Your task to perform on an android device: set default search engine in the chrome app Image 0: 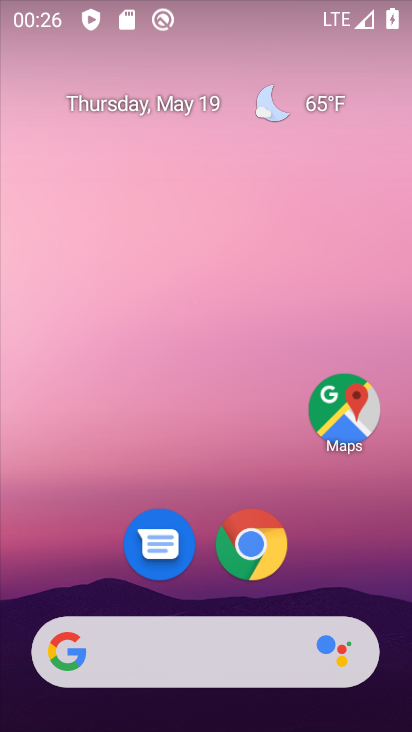
Step 0: drag from (380, 578) to (354, 68)
Your task to perform on an android device: set default search engine in the chrome app Image 1: 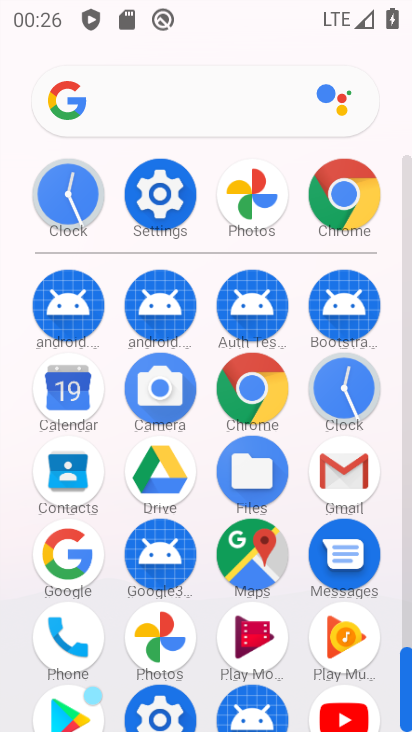
Step 1: click (262, 392)
Your task to perform on an android device: set default search engine in the chrome app Image 2: 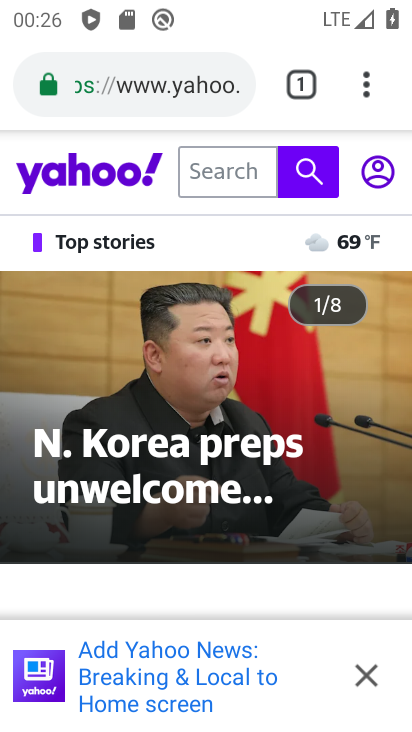
Step 2: click (360, 96)
Your task to perform on an android device: set default search engine in the chrome app Image 3: 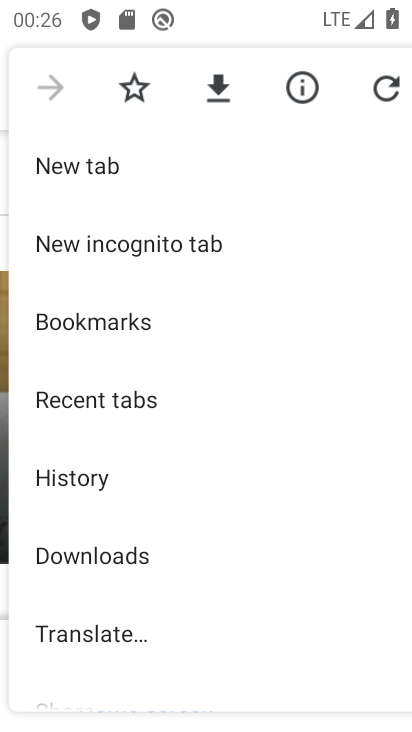
Step 3: drag from (281, 533) to (291, 376)
Your task to perform on an android device: set default search engine in the chrome app Image 4: 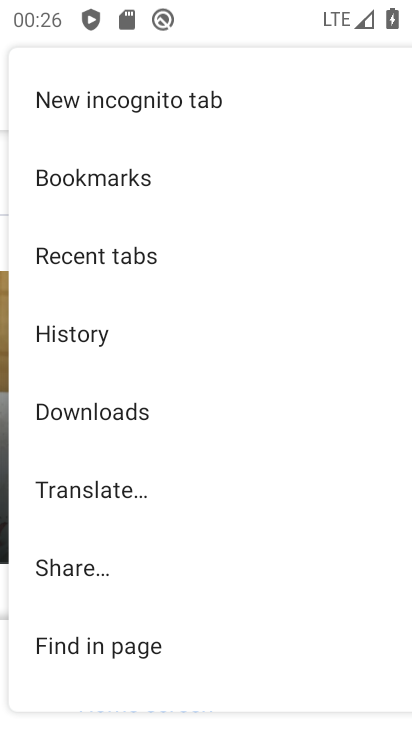
Step 4: drag from (310, 590) to (300, 389)
Your task to perform on an android device: set default search engine in the chrome app Image 5: 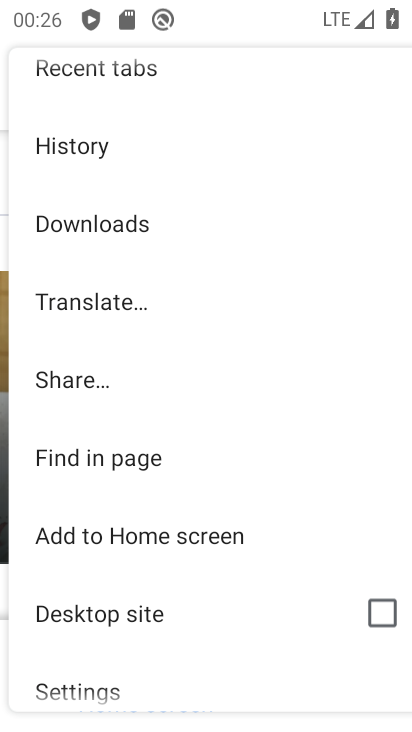
Step 5: drag from (287, 612) to (281, 403)
Your task to perform on an android device: set default search engine in the chrome app Image 6: 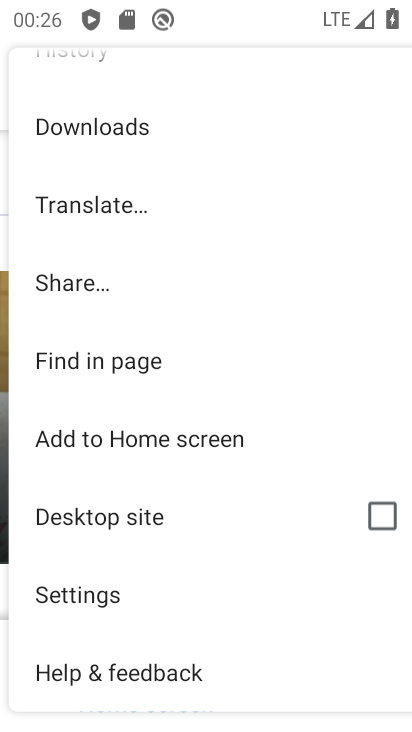
Step 6: click (133, 603)
Your task to perform on an android device: set default search engine in the chrome app Image 7: 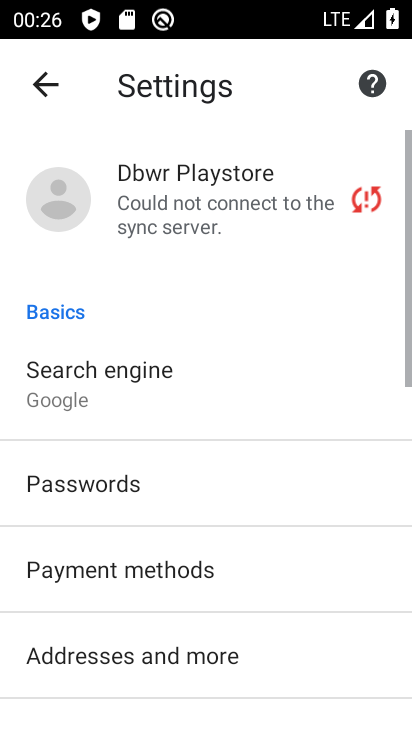
Step 7: drag from (283, 595) to (286, 464)
Your task to perform on an android device: set default search engine in the chrome app Image 8: 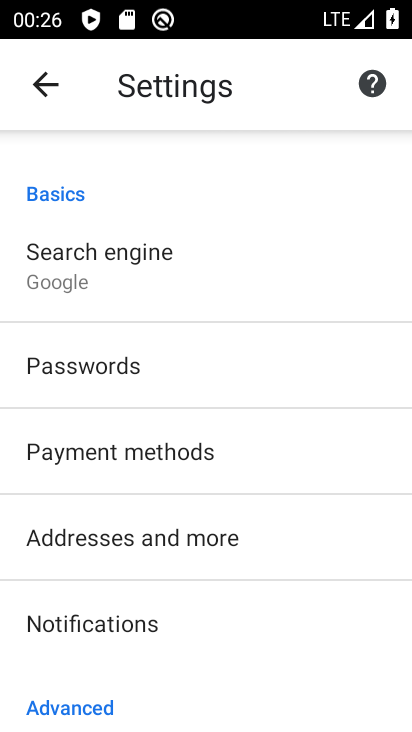
Step 8: drag from (290, 622) to (291, 525)
Your task to perform on an android device: set default search engine in the chrome app Image 9: 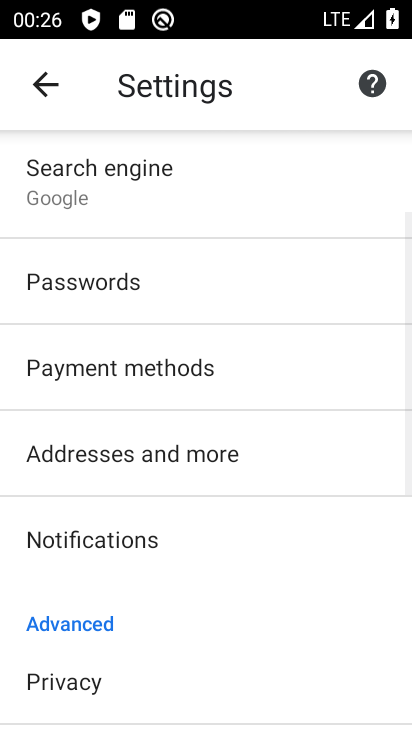
Step 9: drag from (287, 662) to (281, 503)
Your task to perform on an android device: set default search engine in the chrome app Image 10: 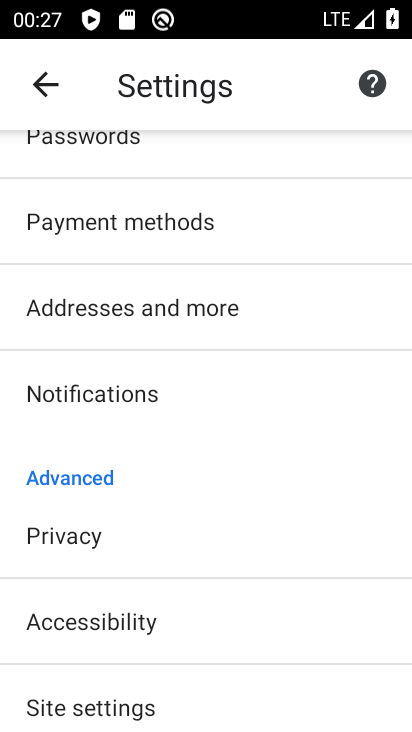
Step 10: drag from (282, 640) to (288, 497)
Your task to perform on an android device: set default search engine in the chrome app Image 11: 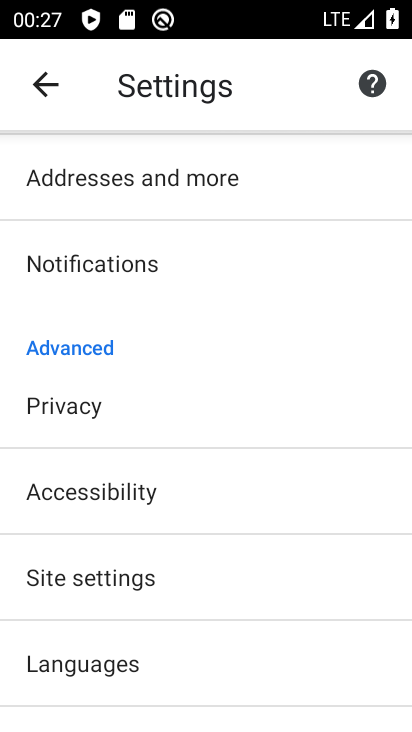
Step 11: drag from (299, 657) to (296, 530)
Your task to perform on an android device: set default search engine in the chrome app Image 12: 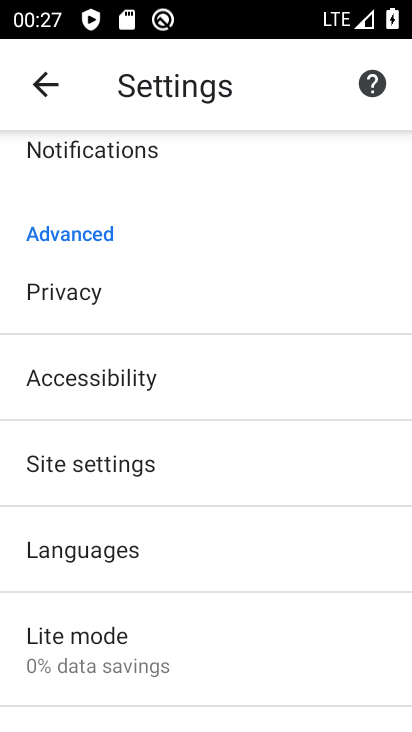
Step 12: drag from (294, 659) to (287, 514)
Your task to perform on an android device: set default search engine in the chrome app Image 13: 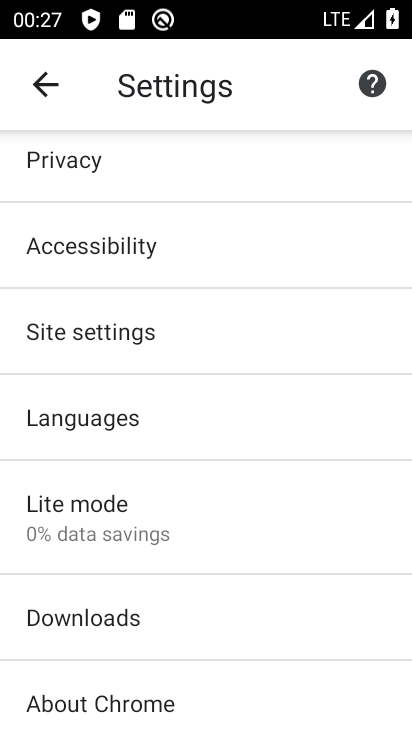
Step 13: drag from (281, 618) to (284, 451)
Your task to perform on an android device: set default search engine in the chrome app Image 14: 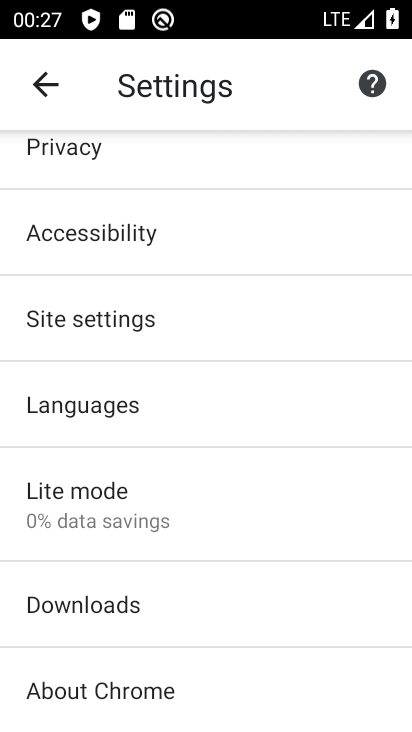
Step 14: drag from (278, 335) to (264, 442)
Your task to perform on an android device: set default search engine in the chrome app Image 15: 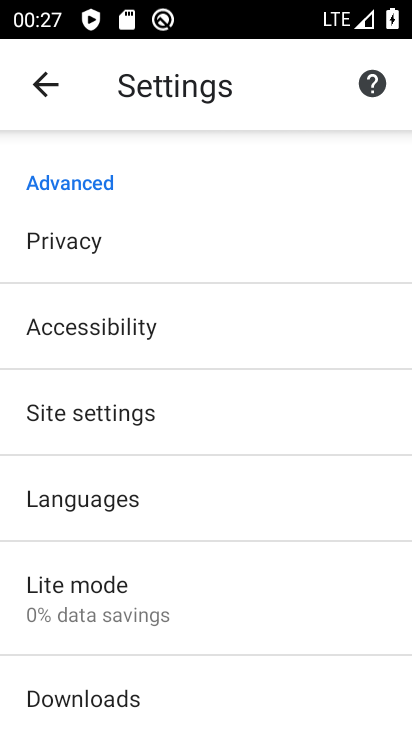
Step 15: drag from (247, 307) to (225, 436)
Your task to perform on an android device: set default search engine in the chrome app Image 16: 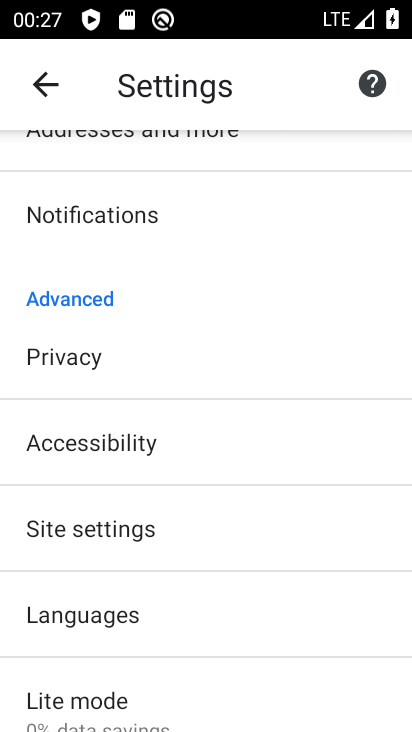
Step 16: drag from (222, 252) to (207, 381)
Your task to perform on an android device: set default search engine in the chrome app Image 17: 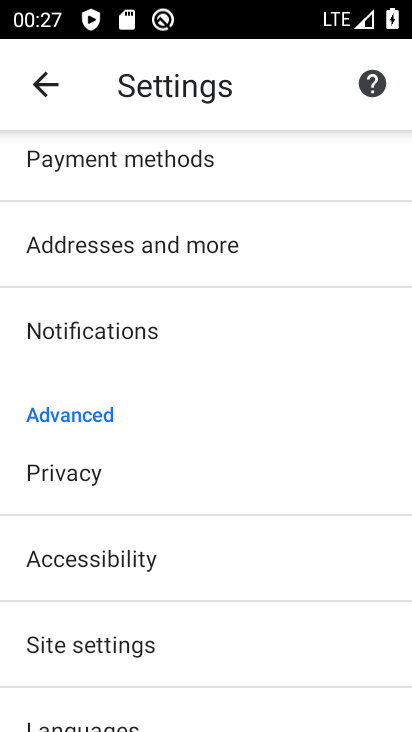
Step 17: drag from (247, 192) to (231, 370)
Your task to perform on an android device: set default search engine in the chrome app Image 18: 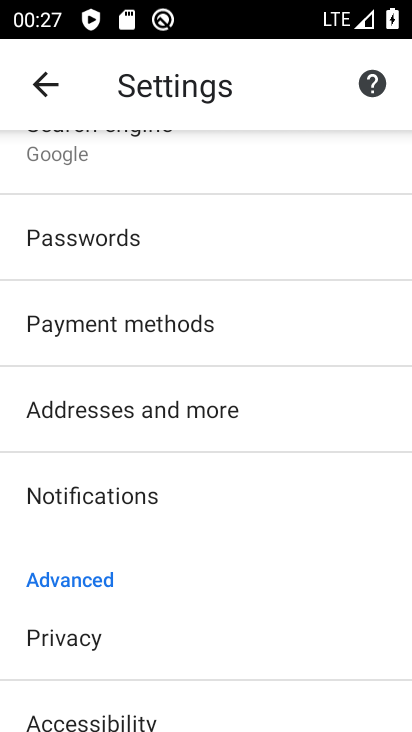
Step 18: drag from (227, 187) to (207, 319)
Your task to perform on an android device: set default search engine in the chrome app Image 19: 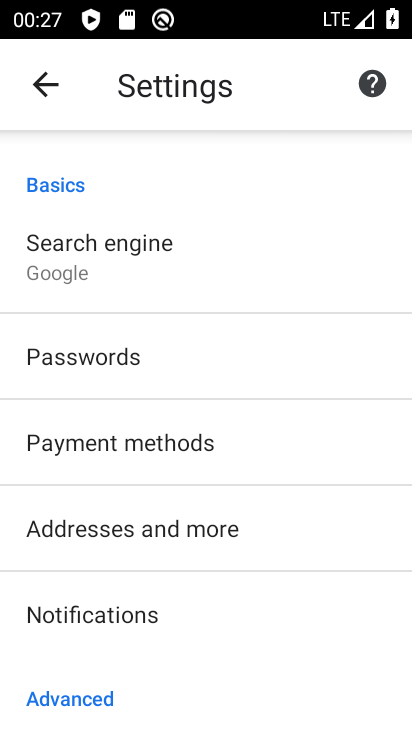
Step 19: drag from (211, 203) to (211, 338)
Your task to perform on an android device: set default search engine in the chrome app Image 20: 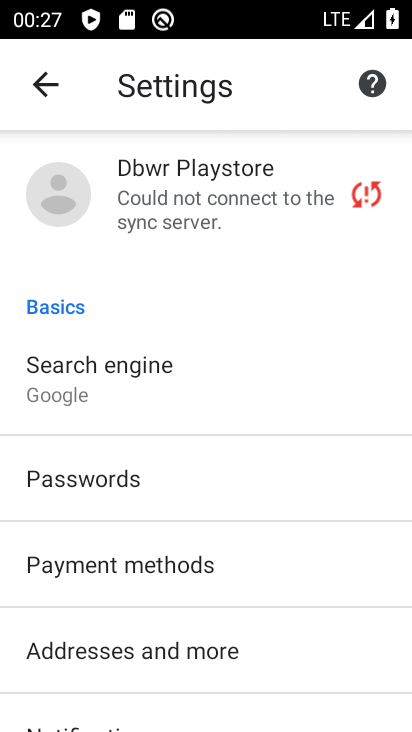
Step 20: click (90, 391)
Your task to perform on an android device: set default search engine in the chrome app Image 21: 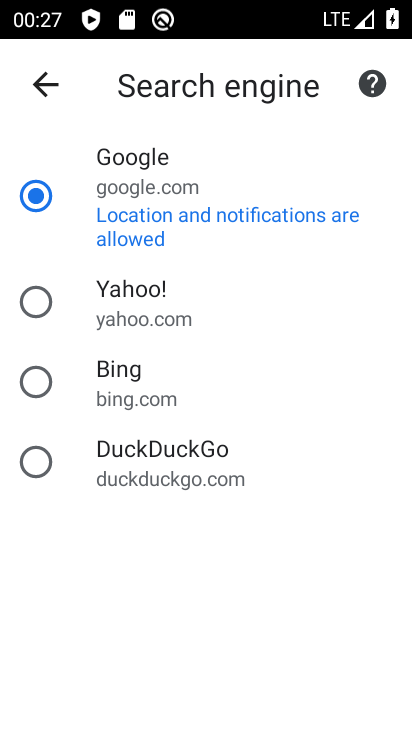
Step 21: click (85, 387)
Your task to perform on an android device: set default search engine in the chrome app Image 22: 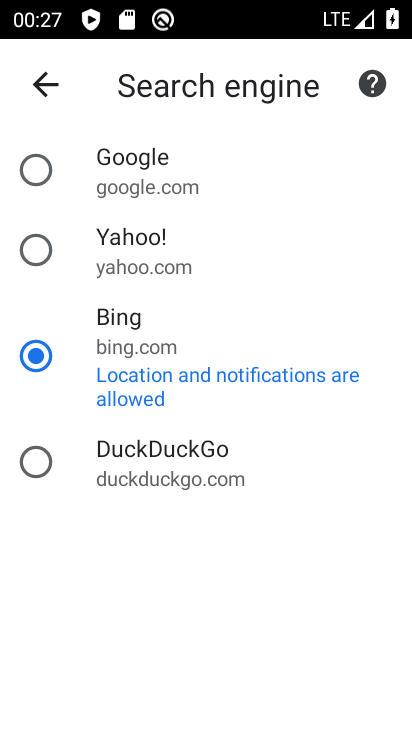
Step 22: task complete